Your task to perform on an android device: delete location history Image 0: 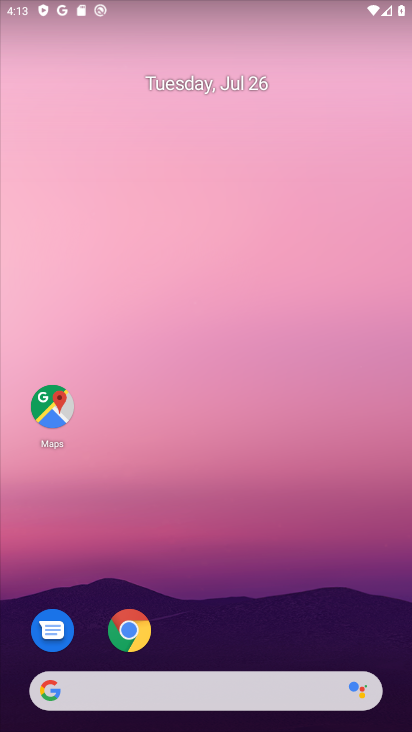
Step 0: drag from (336, 595) to (314, 73)
Your task to perform on an android device: delete location history Image 1: 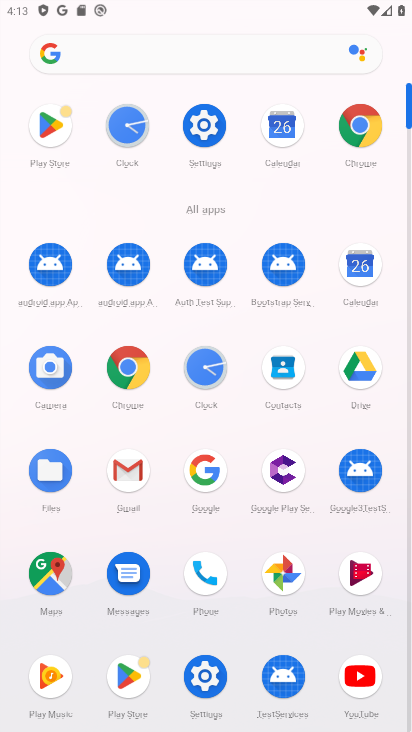
Step 1: click (47, 572)
Your task to perform on an android device: delete location history Image 2: 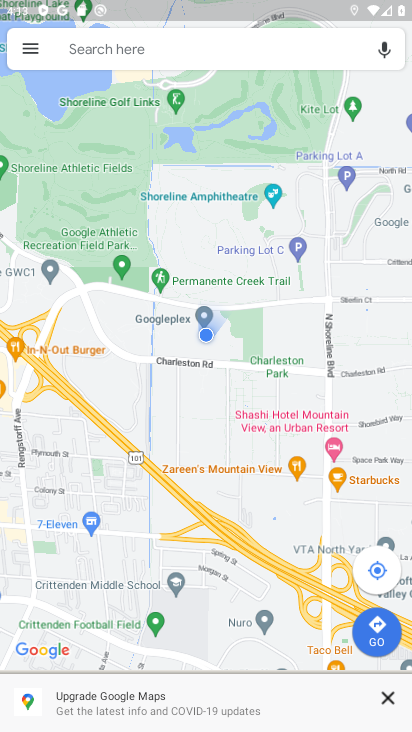
Step 2: click (32, 48)
Your task to perform on an android device: delete location history Image 3: 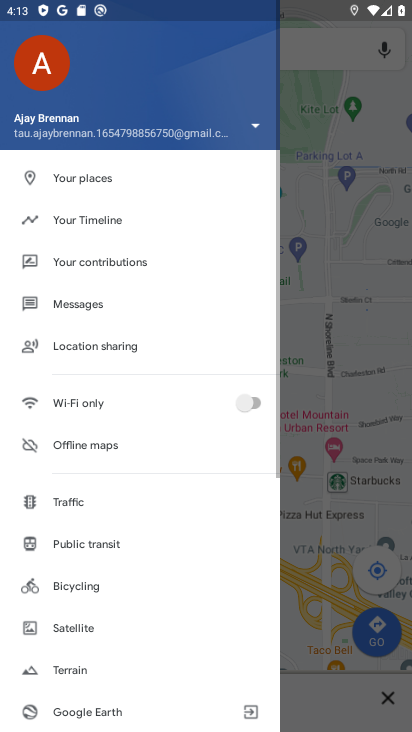
Step 3: drag from (100, 675) to (135, 263)
Your task to perform on an android device: delete location history Image 4: 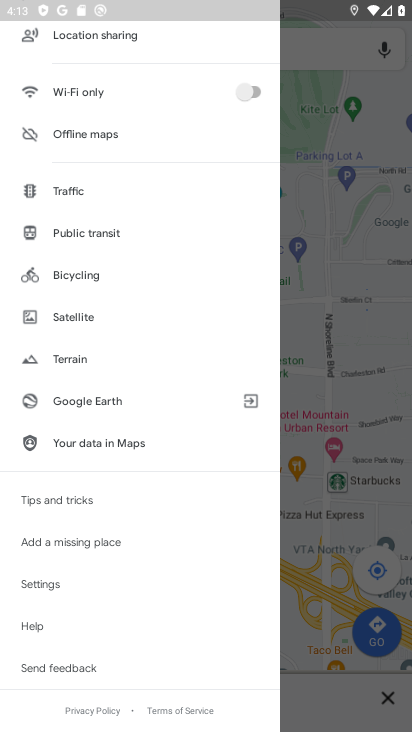
Step 4: click (65, 577)
Your task to perform on an android device: delete location history Image 5: 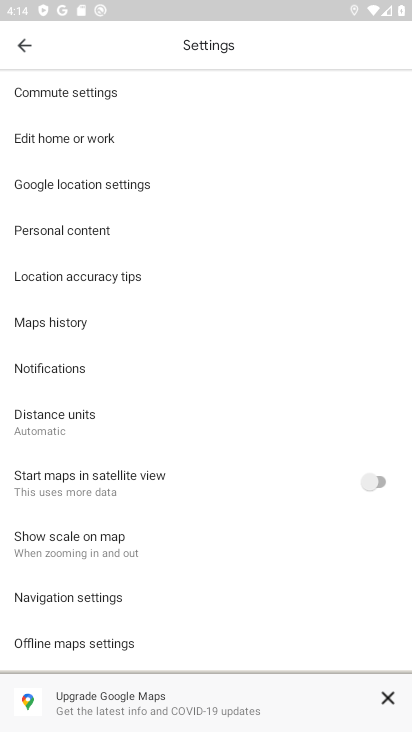
Step 5: click (57, 320)
Your task to perform on an android device: delete location history Image 6: 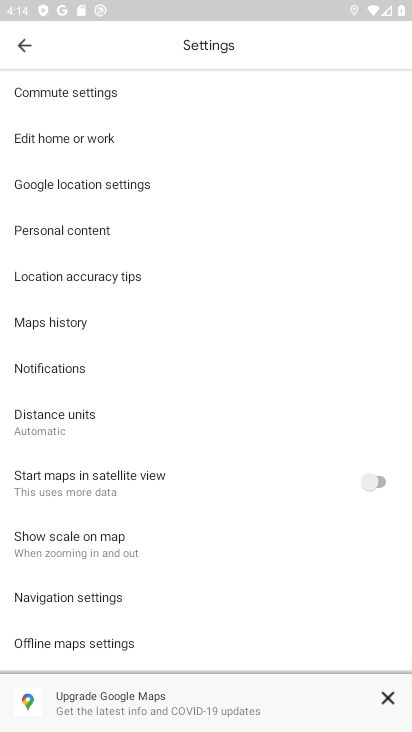
Step 6: click (74, 315)
Your task to perform on an android device: delete location history Image 7: 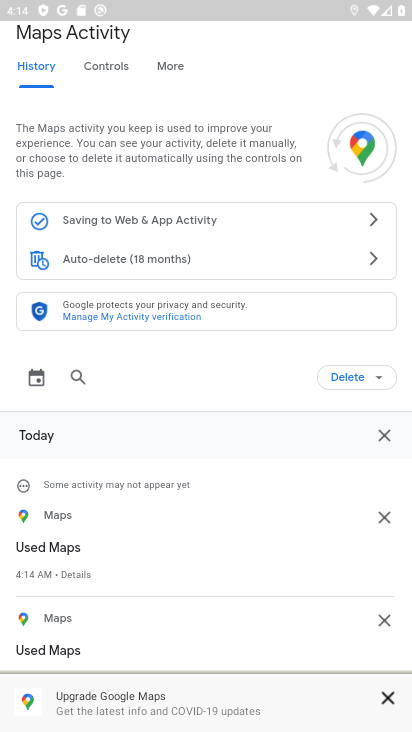
Step 7: click (359, 366)
Your task to perform on an android device: delete location history Image 8: 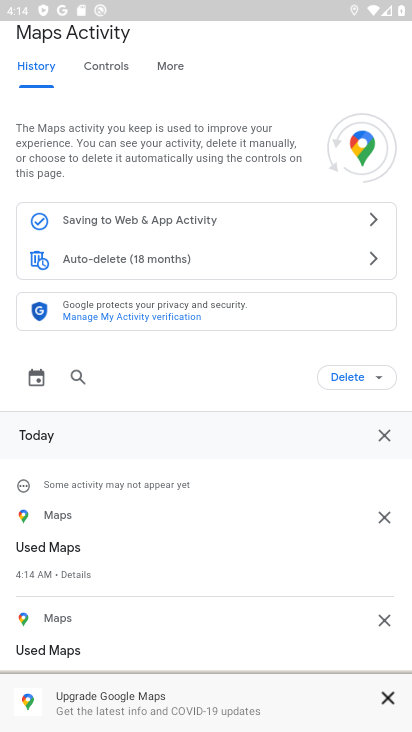
Step 8: click (364, 380)
Your task to perform on an android device: delete location history Image 9: 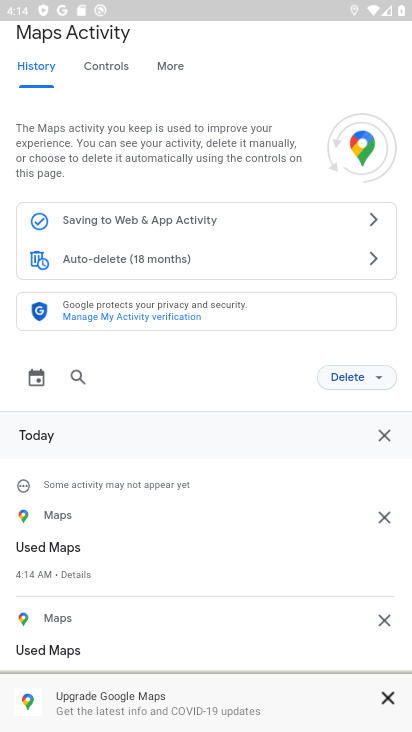
Step 9: click (381, 377)
Your task to perform on an android device: delete location history Image 10: 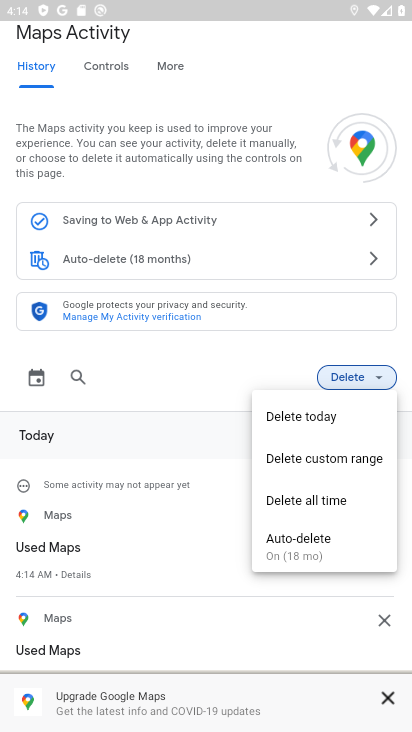
Step 10: click (277, 507)
Your task to perform on an android device: delete location history Image 11: 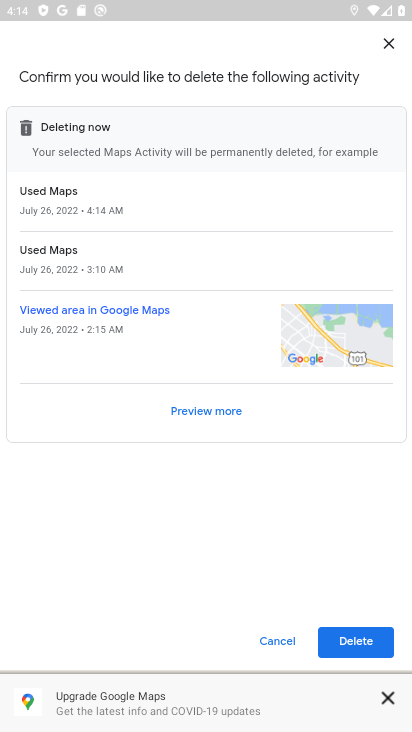
Step 11: click (380, 642)
Your task to perform on an android device: delete location history Image 12: 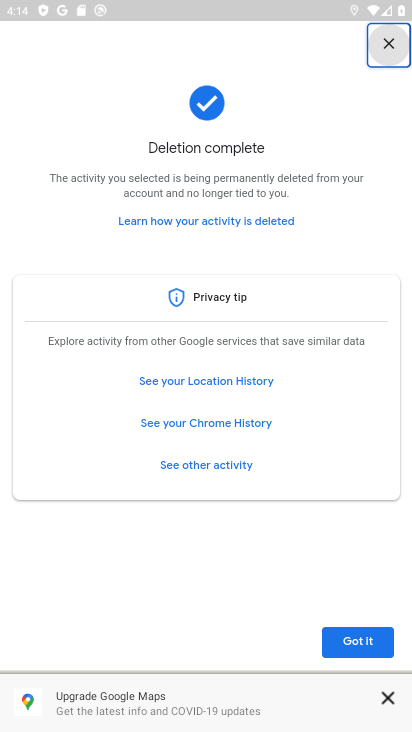
Step 12: click (347, 644)
Your task to perform on an android device: delete location history Image 13: 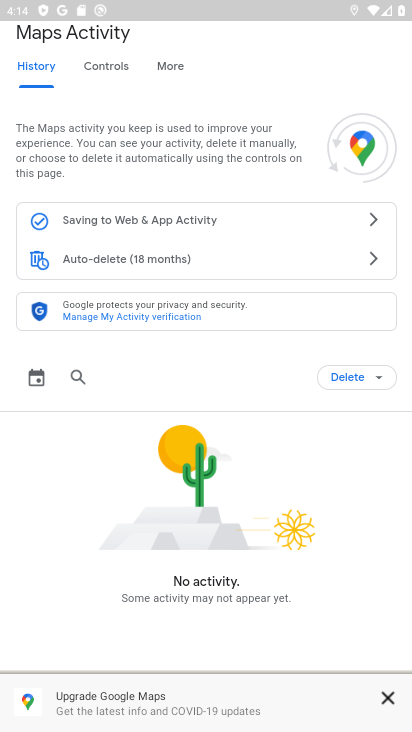
Step 13: task complete